Your task to perform on an android device: search for starred emails in the gmail app Image 0: 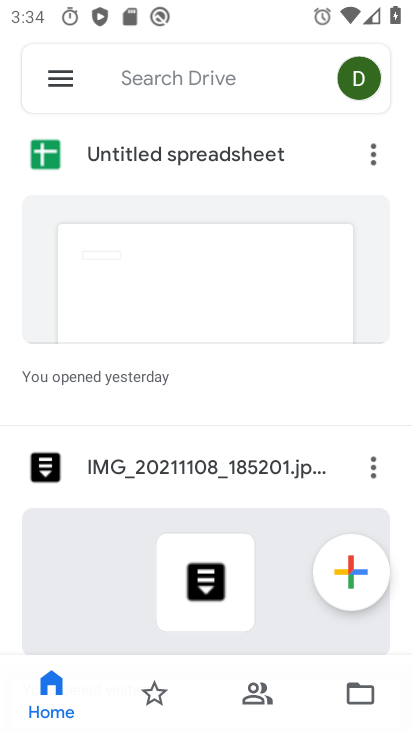
Step 0: press home button
Your task to perform on an android device: search for starred emails in the gmail app Image 1: 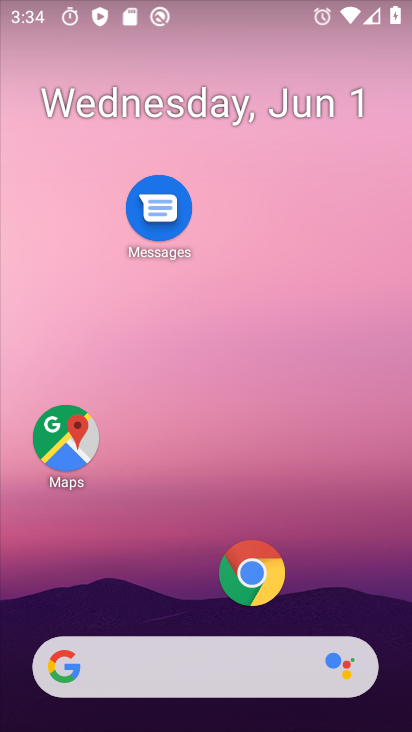
Step 1: drag from (191, 619) to (282, 188)
Your task to perform on an android device: search for starred emails in the gmail app Image 2: 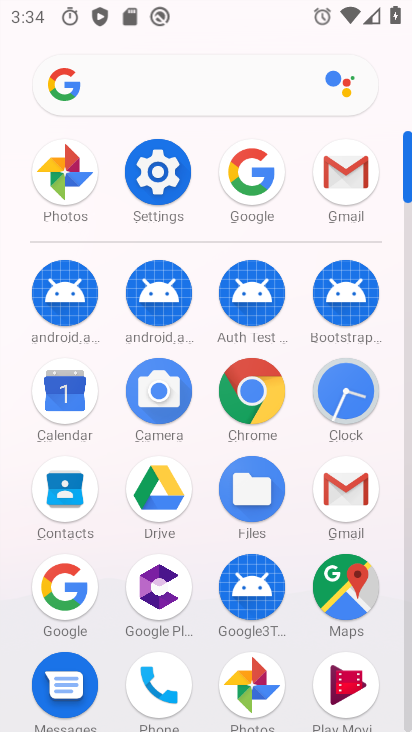
Step 2: click (331, 149)
Your task to perform on an android device: search for starred emails in the gmail app Image 3: 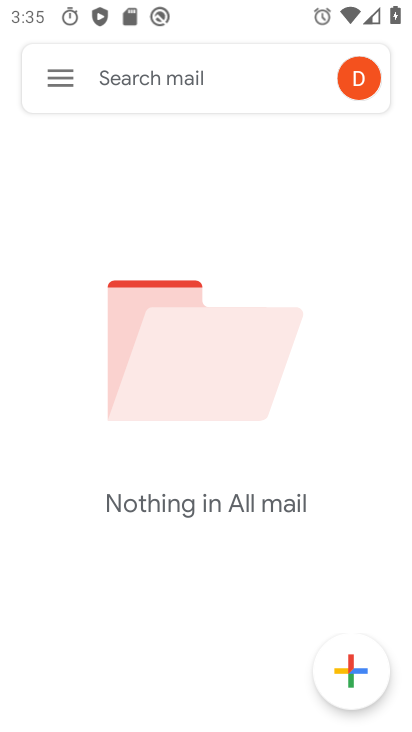
Step 3: click (62, 92)
Your task to perform on an android device: search for starred emails in the gmail app Image 4: 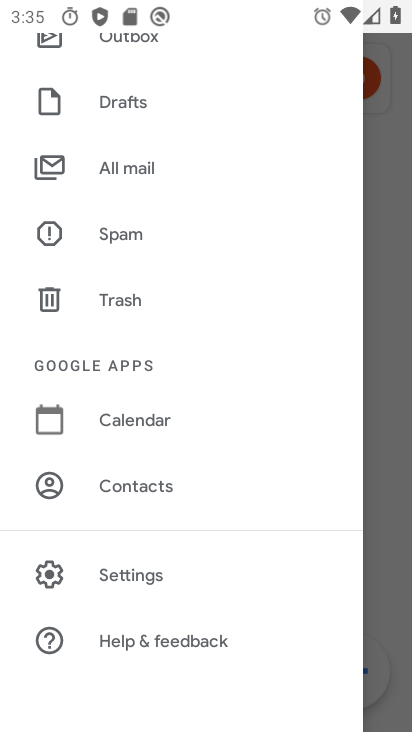
Step 4: drag from (146, 201) to (191, 414)
Your task to perform on an android device: search for starred emails in the gmail app Image 5: 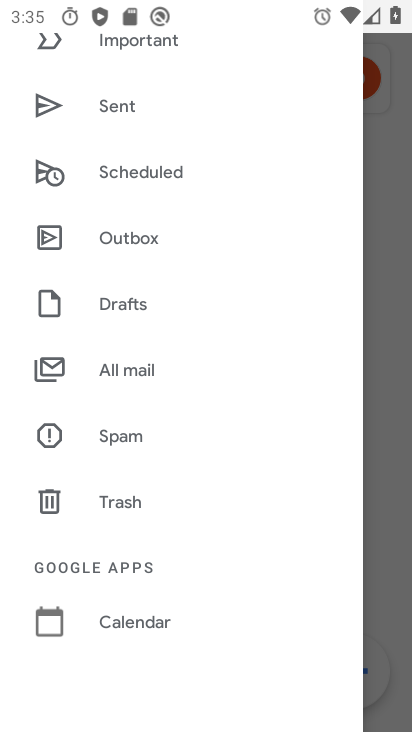
Step 5: drag from (154, 229) to (154, 489)
Your task to perform on an android device: search for starred emails in the gmail app Image 6: 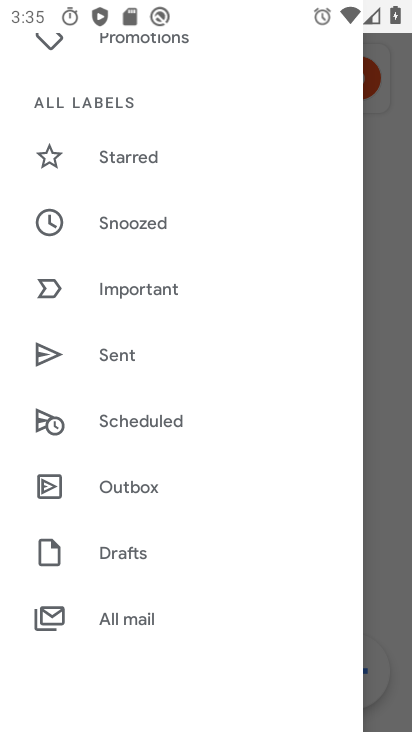
Step 6: drag from (133, 267) to (137, 483)
Your task to perform on an android device: search for starred emails in the gmail app Image 7: 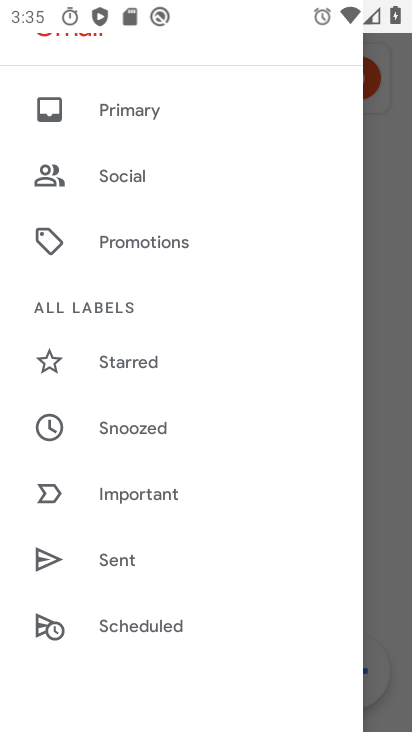
Step 7: click (162, 358)
Your task to perform on an android device: search for starred emails in the gmail app Image 8: 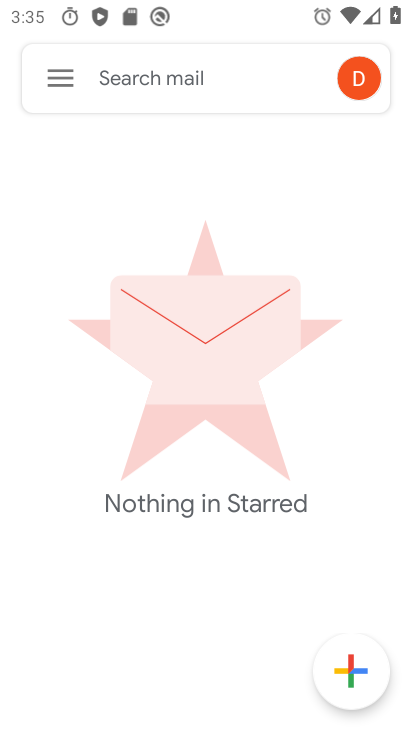
Step 8: task complete